Your task to perform on an android device: find snoozed emails in the gmail app Image 0: 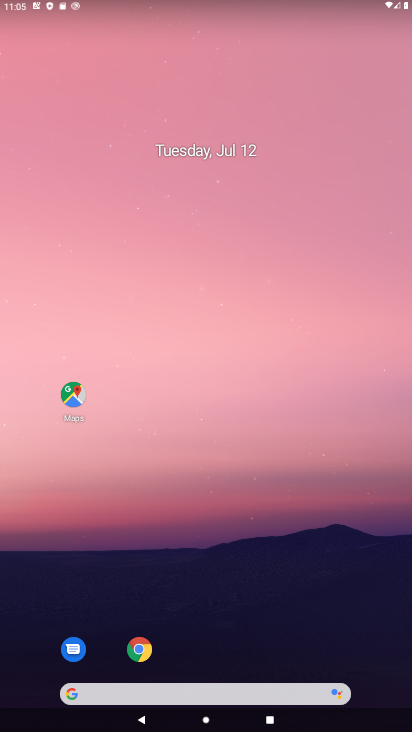
Step 0: drag from (398, 663) to (343, 126)
Your task to perform on an android device: find snoozed emails in the gmail app Image 1: 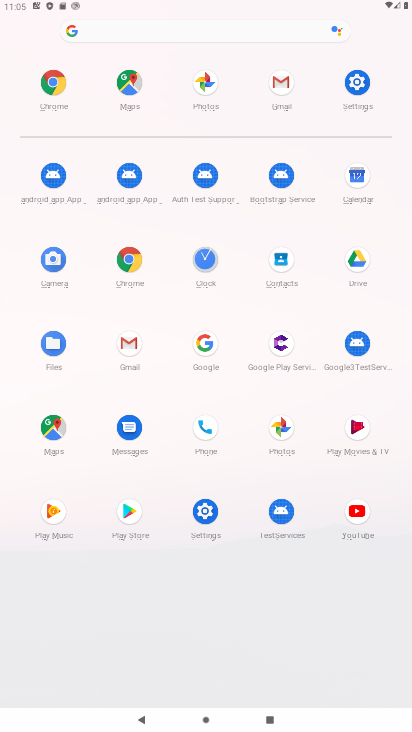
Step 1: click (128, 344)
Your task to perform on an android device: find snoozed emails in the gmail app Image 2: 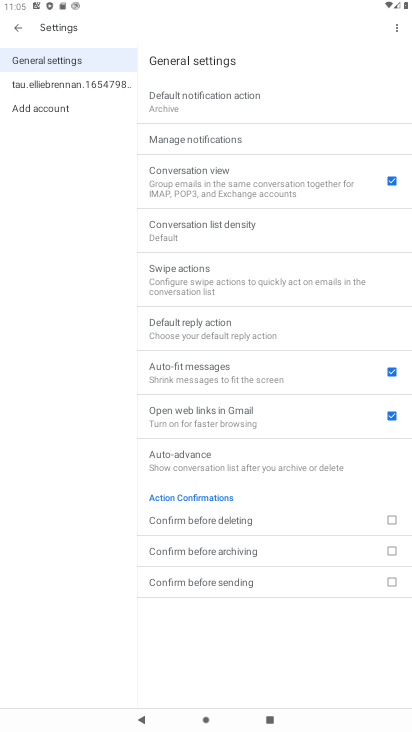
Step 2: press back button
Your task to perform on an android device: find snoozed emails in the gmail app Image 3: 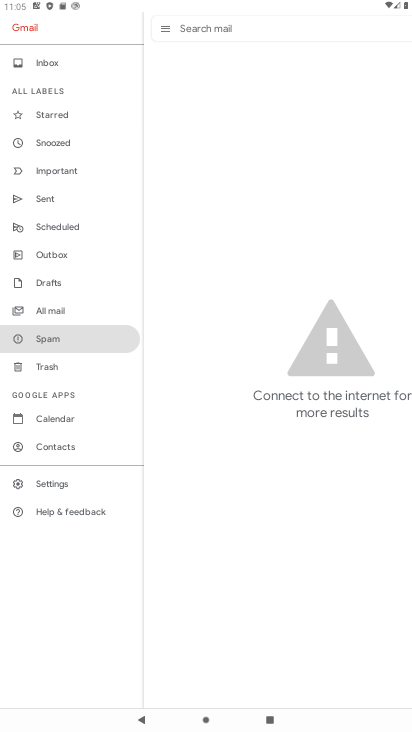
Step 3: click (48, 138)
Your task to perform on an android device: find snoozed emails in the gmail app Image 4: 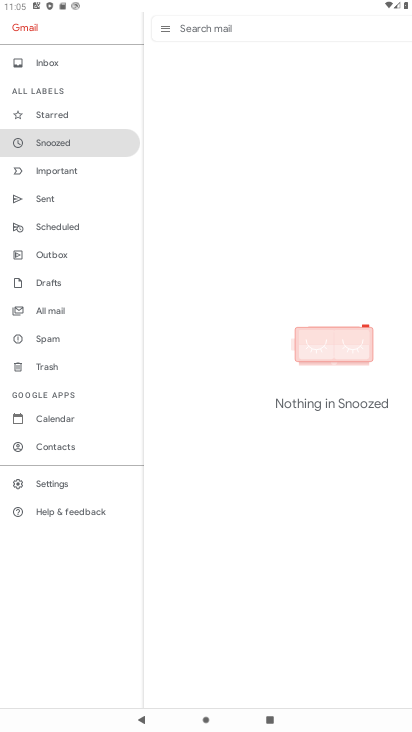
Step 4: task complete